Your task to perform on an android device: Show me popular games on the Play Store Image 0: 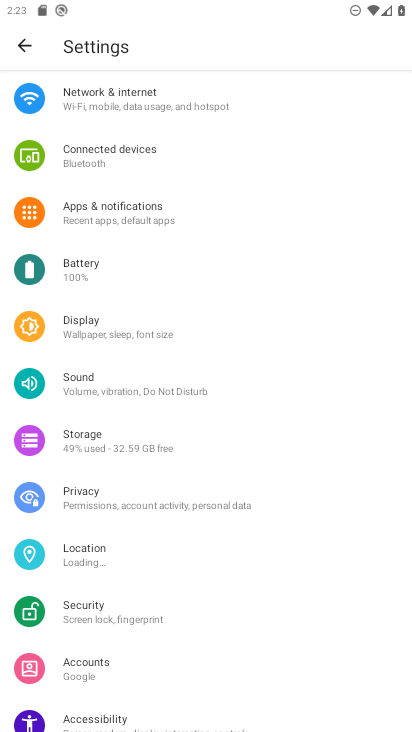
Step 0: press home button
Your task to perform on an android device: Show me popular games on the Play Store Image 1: 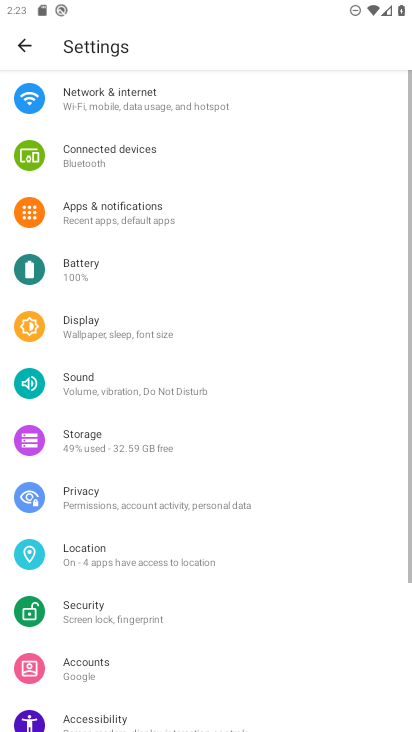
Step 1: press home button
Your task to perform on an android device: Show me popular games on the Play Store Image 2: 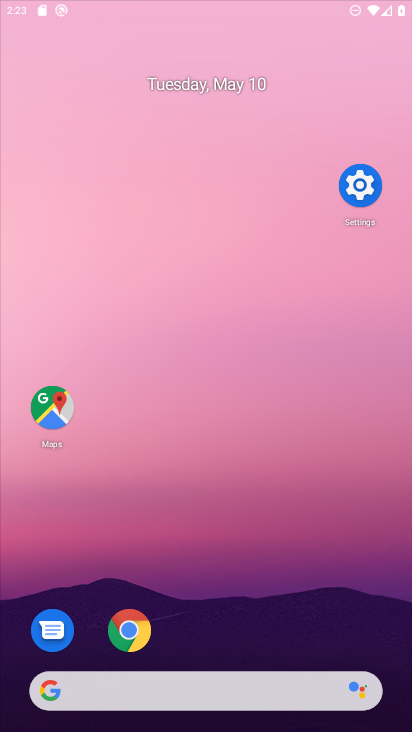
Step 2: press home button
Your task to perform on an android device: Show me popular games on the Play Store Image 3: 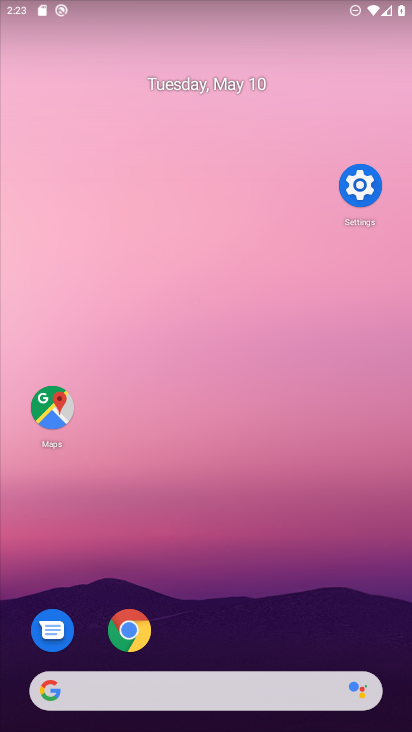
Step 3: drag from (271, 659) to (144, 264)
Your task to perform on an android device: Show me popular games on the Play Store Image 4: 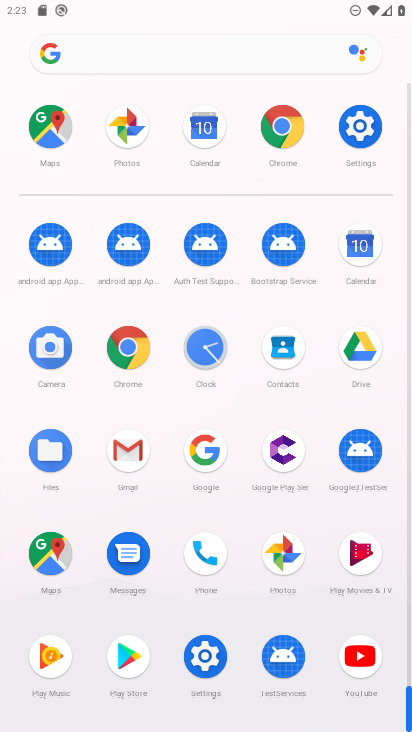
Step 4: click (133, 660)
Your task to perform on an android device: Show me popular games on the Play Store Image 5: 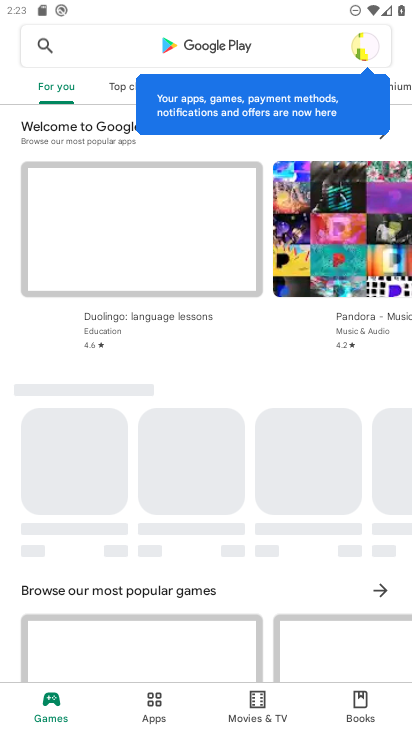
Step 5: click (113, 48)
Your task to perform on an android device: Show me popular games on the Play Store Image 6: 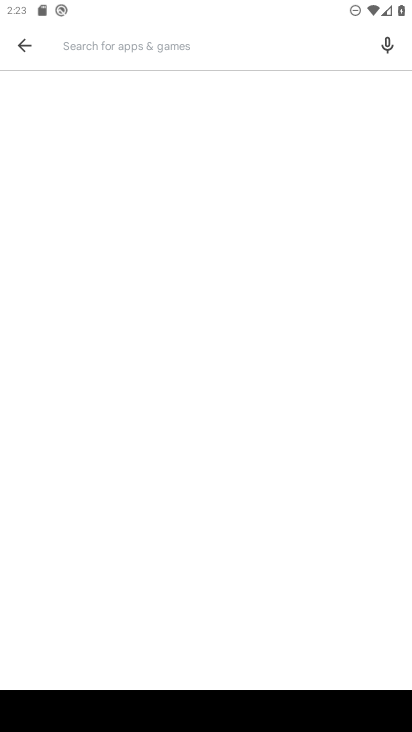
Step 6: type "popular games"
Your task to perform on an android device: Show me popular games on the Play Store Image 7: 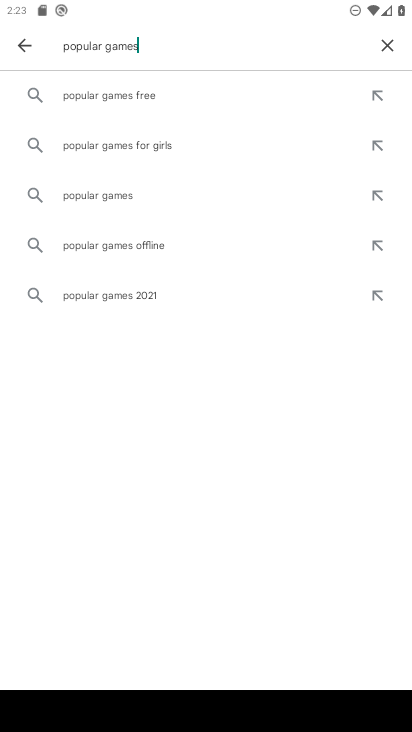
Step 7: click (103, 85)
Your task to perform on an android device: Show me popular games on the Play Store Image 8: 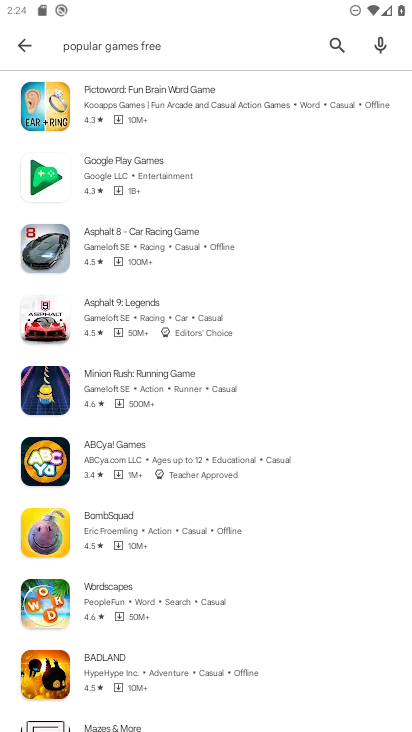
Step 8: drag from (167, 476) to (146, 129)
Your task to perform on an android device: Show me popular games on the Play Store Image 9: 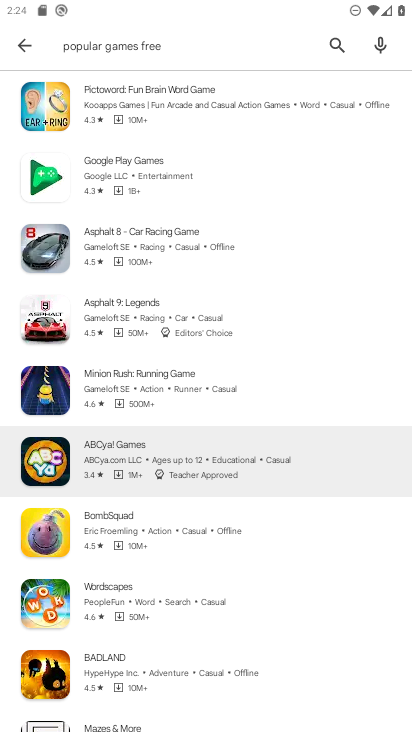
Step 9: drag from (199, 436) to (185, 96)
Your task to perform on an android device: Show me popular games on the Play Store Image 10: 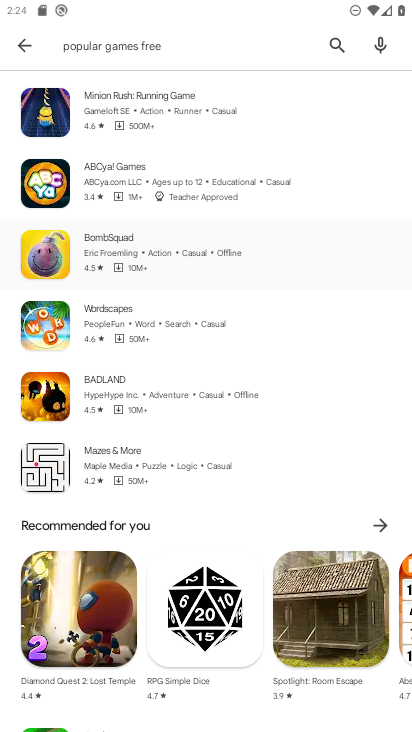
Step 10: drag from (192, 435) to (182, 43)
Your task to perform on an android device: Show me popular games on the Play Store Image 11: 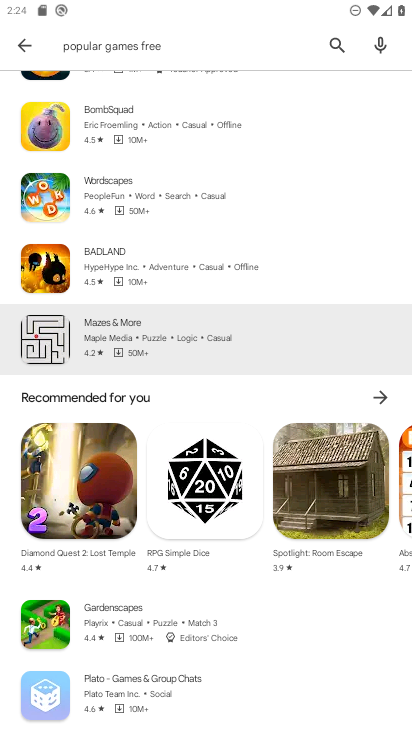
Step 11: drag from (168, 407) to (156, 77)
Your task to perform on an android device: Show me popular games on the Play Store Image 12: 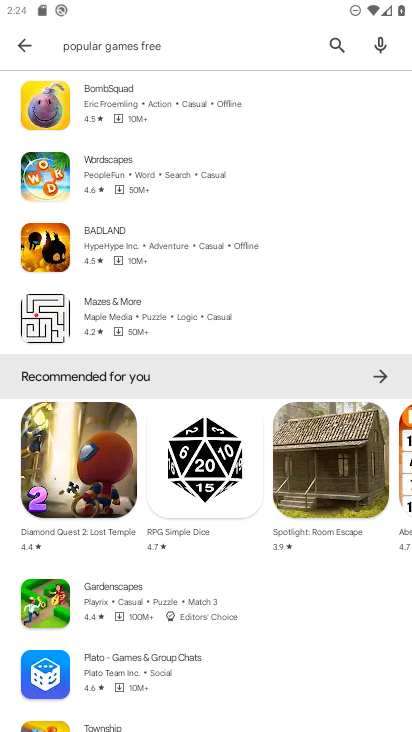
Step 12: drag from (137, 356) to (158, 74)
Your task to perform on an android device: Show me popular games on the Play Store Image 13: 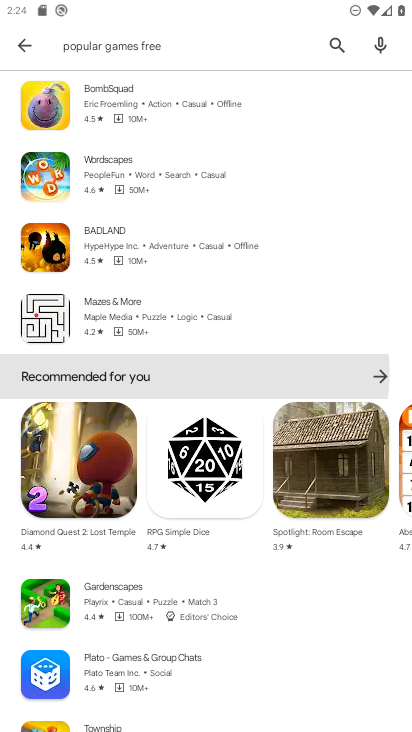
Step 13: drag from (160, 485) to (122, 100)
Your task to perform on an android device: Show me popular games on the Play Store Image 14: 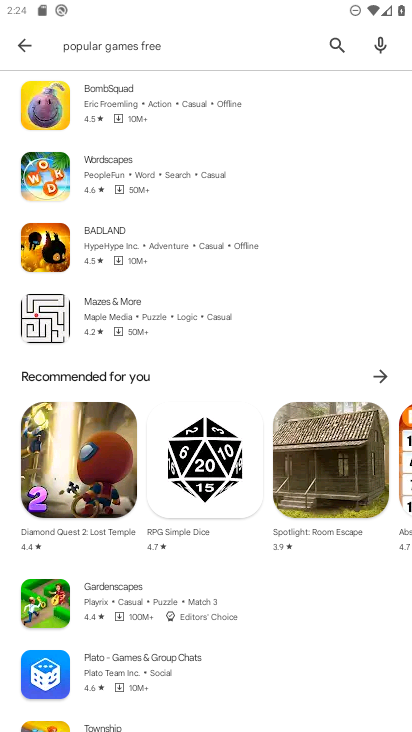
Step 14: drag from (196, 521) to (189, 156)
Your task to perform on an android device: Show me popular games on the Play Store Image 15: 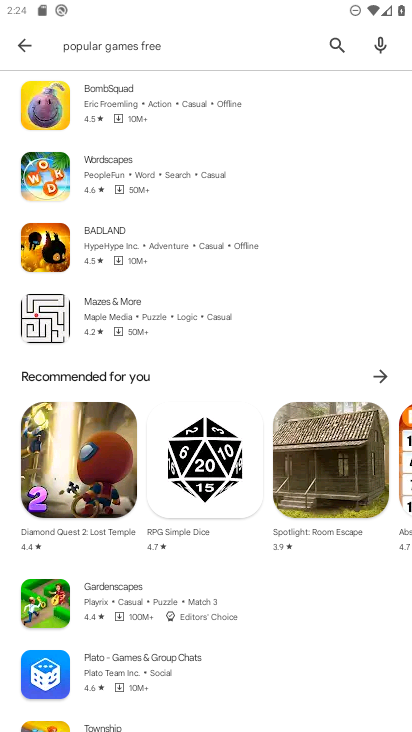
Step 15: drag from (223, 401) to (216, 163)
Your task to perform on an android device: Show me popular games on the Play Store Image 16: 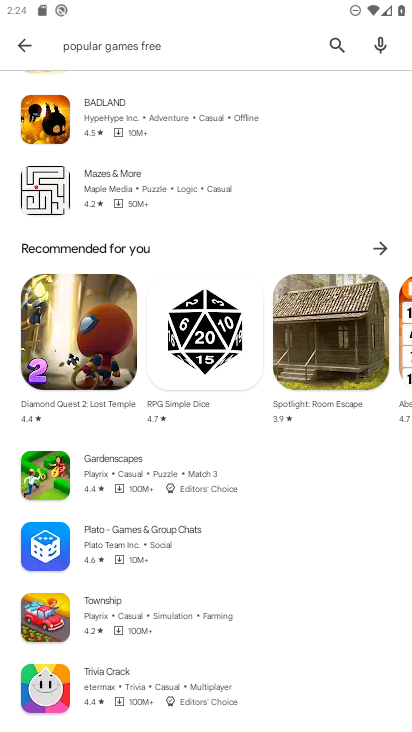
Step 16: drag from (214, 173) to (220, 534)
Your task to perform on an android device: Show me popular games on the Play Store Image 17: 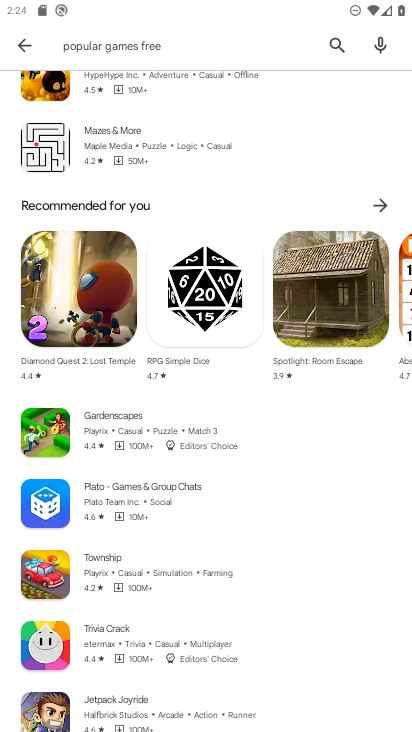
Step 17: click (257, 534)
Your task to perform on an android device: Show me popular games on the Play Store Image 18: 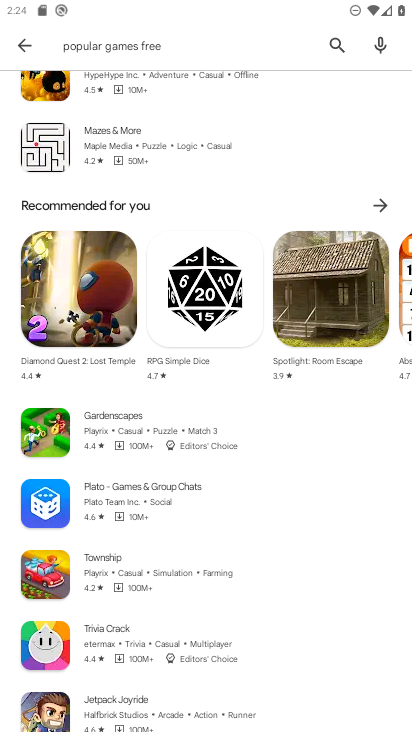
Step 18: task complete